Your task to perform on an android device: Show me recent news Image 0: 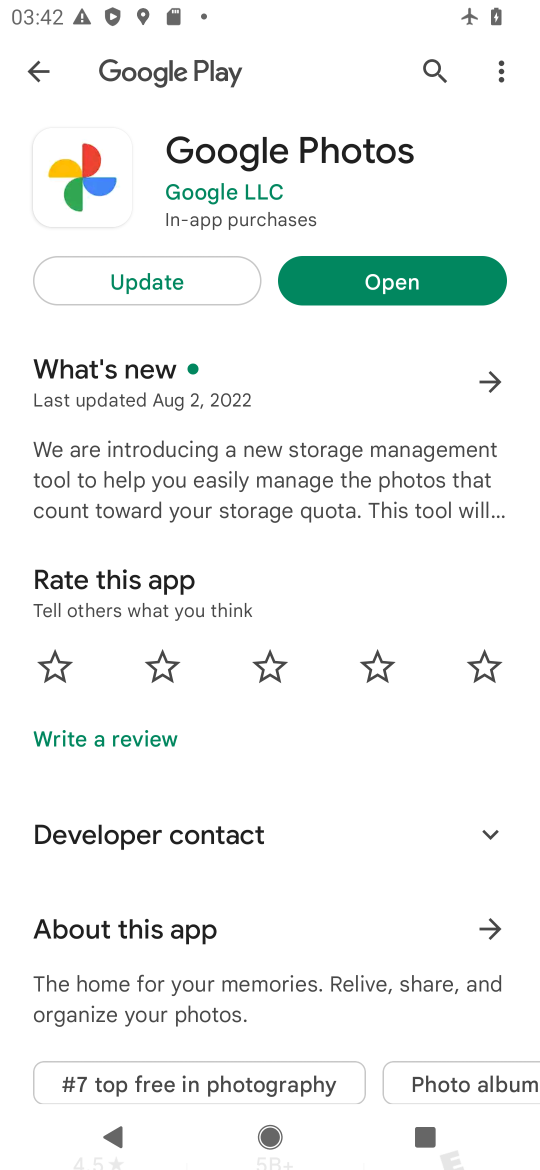
Step 0: press home button
Your task to perform on an android device: Show me recent news Image 1: 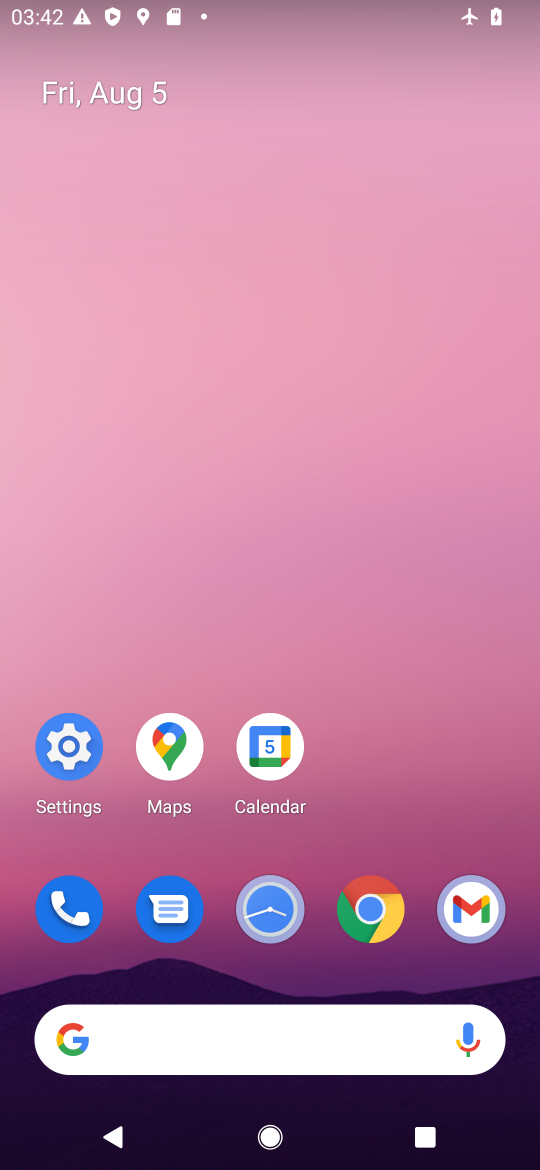
Step 1: task complete